Your task to perform on an android device: turn on data saver in the chrome app Image 0: 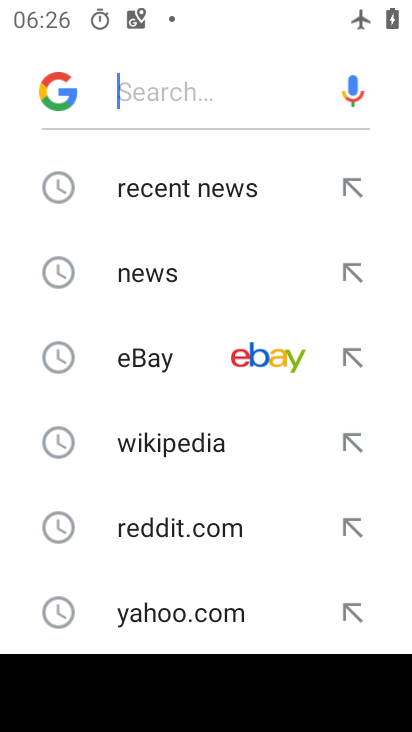
Step 0: press home button
Your task to perform on an android device: turn on data saver in the chrome app Image 1: 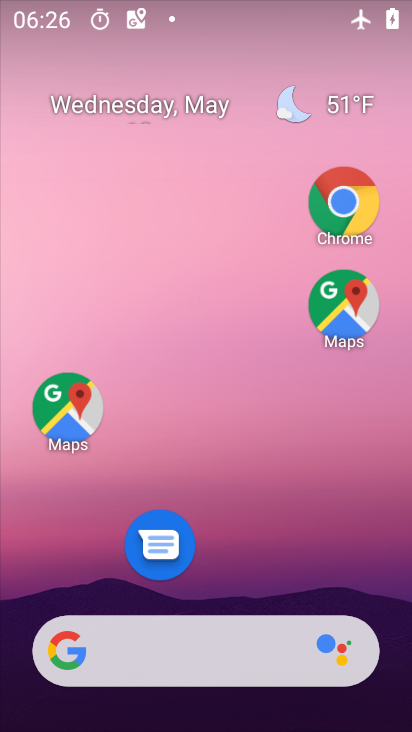
Step 1: click (344, 215)
Your task to perform on an android device: turn on data saver in the chrome app Image 2: 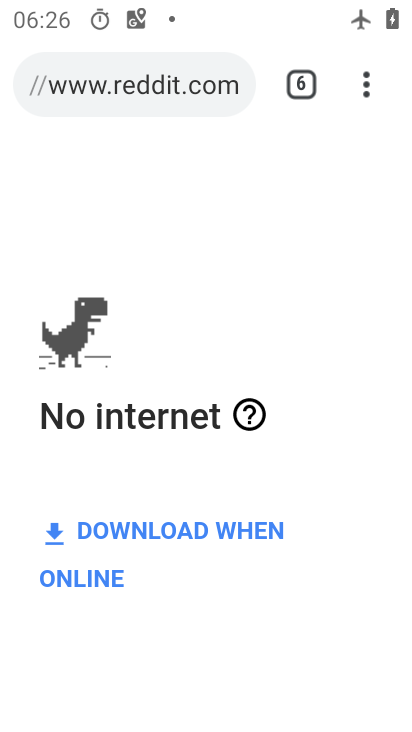
Step 2: click (369, 92)
Your task to perform on an android device: turn on data saver in the chrome app Image 3: 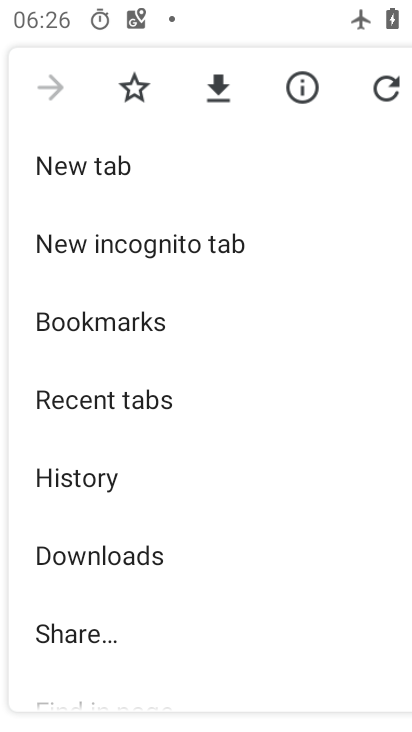
Step 3: drag from (125, 582) to (65, 57)
Your task to perform on an android device: turn on data saver in the chrome app Image 4: 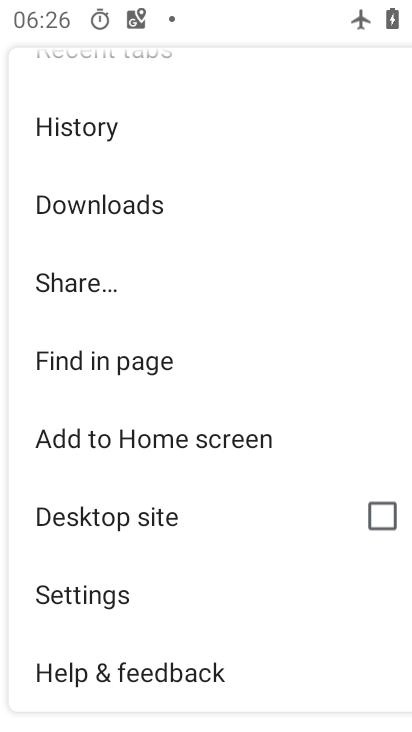
Step 4: click (94, 590)
Your task to perform on an android device: turn on data saver in the chrome app Image 5: 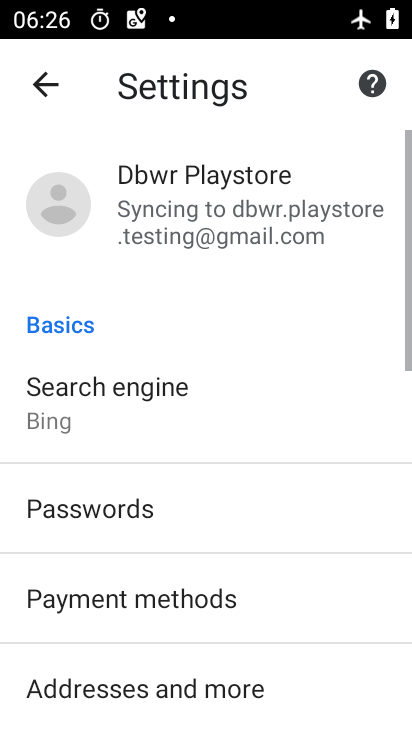
Step 5: drag from (122, 681) to (135, 70)
Your task to perform on an android device: turn on data saver in the chrome app Image 6: 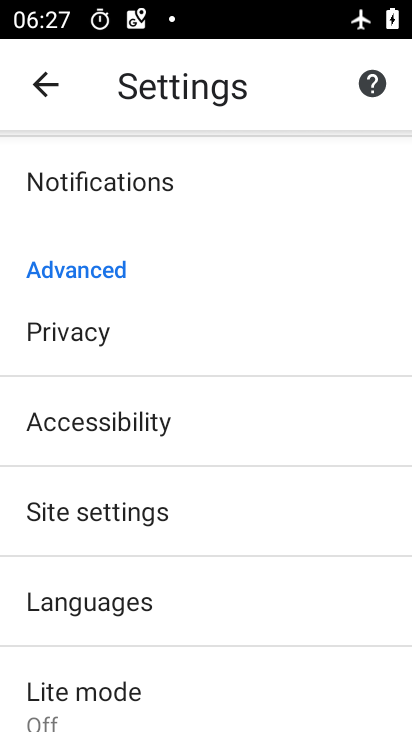
Step 6: click (115, 697)
Your task to perform on an android device: turn on data saver in the chrome app Image 7: 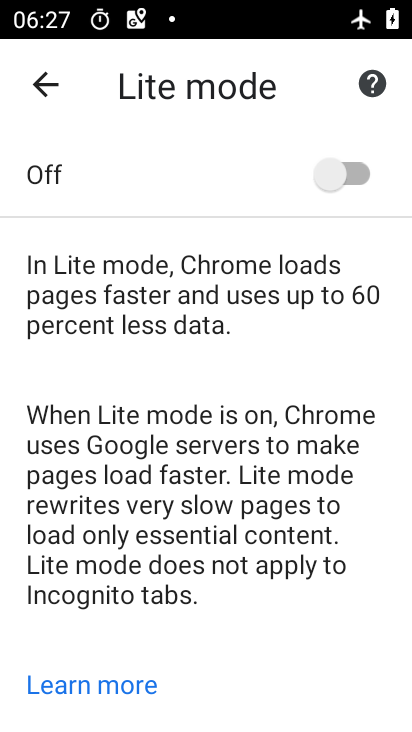
Step 7: click (361, 175)
Your task to perform on an android device: turn on data saver in the chrome app Image 8: 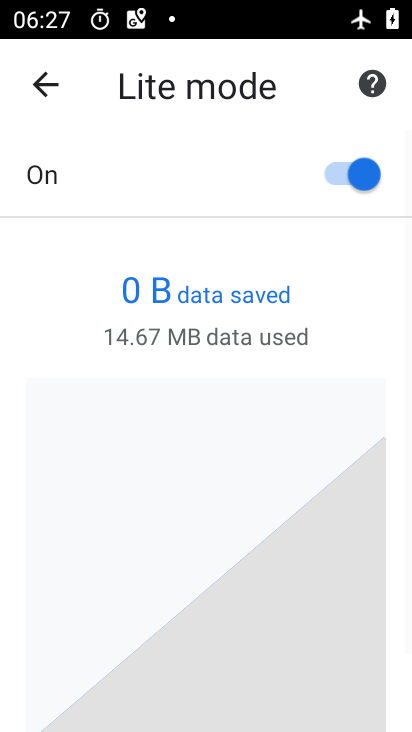
Step 8: task complete